Your task to perform on an android device: read, delete, or share a saved page in the chrome app Image 0: 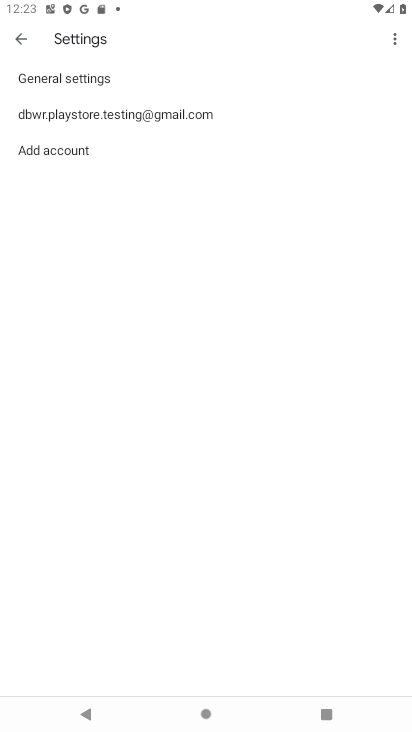
Step 0: click (14, 38)
Your task to perform on an android device: read, delete, or share a saved page in the chrome app Image 1: 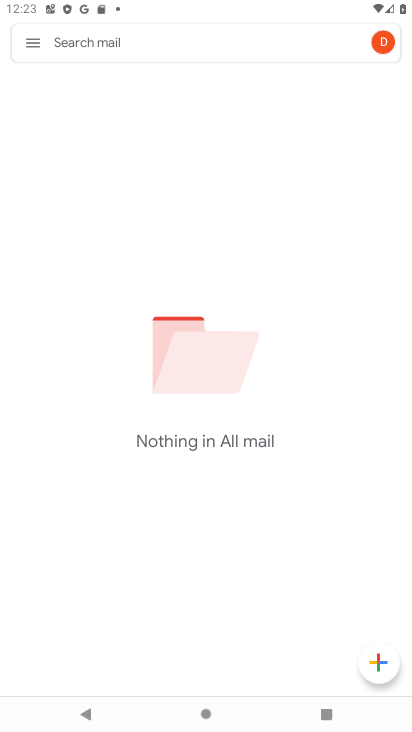
Step 1: press home button
Your task to perform on an android device: read, delete, or share a saved page in the chrome app Image 2: 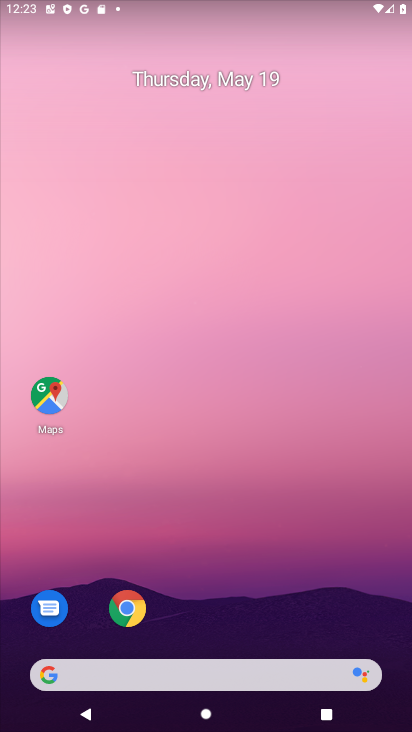
Step 2: drag from (247, 575) to (239, 249)
Your task to perform on an android device: read, delete, or share a saved page in the chrome app Image 3: 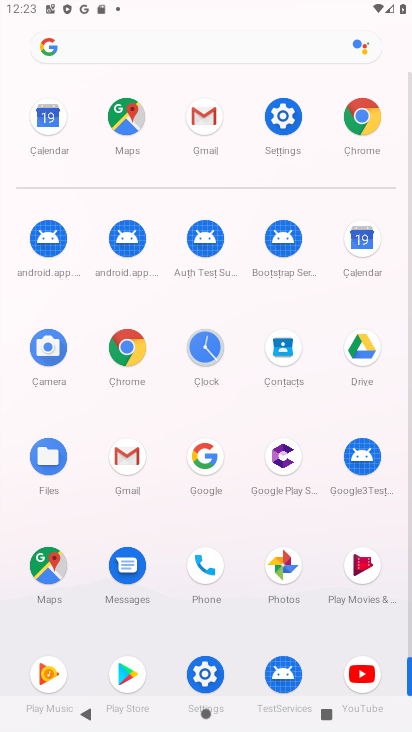
Step 3: click (371, 113)
Your task to perform on an android device: read, delete, or share a saved page in the chrome app Image 4: 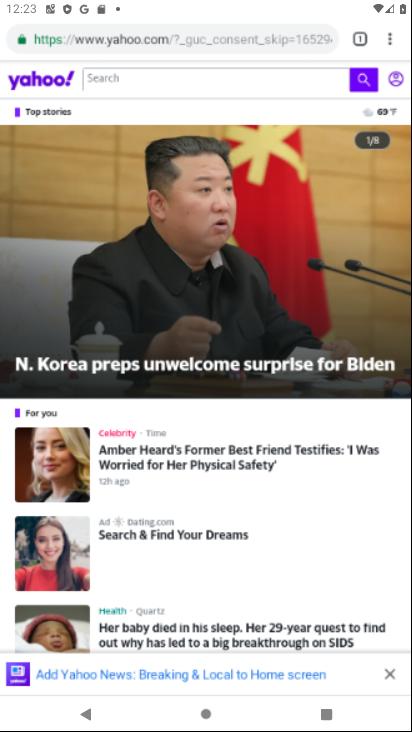
Step 4: click (396, 34)
Your task to perform on an android device: read, delete, or share a saved page in the chrome app Image 5: 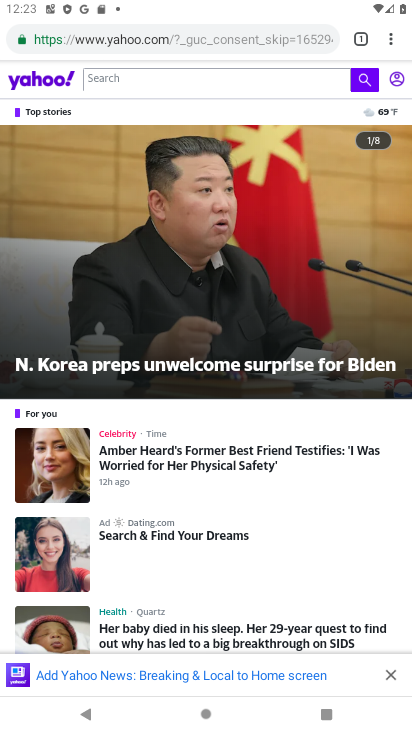
Step 5: click (393, 38)
Your task to perform on an android device: read, delete, or share a saved page in the chrome app Image 6: 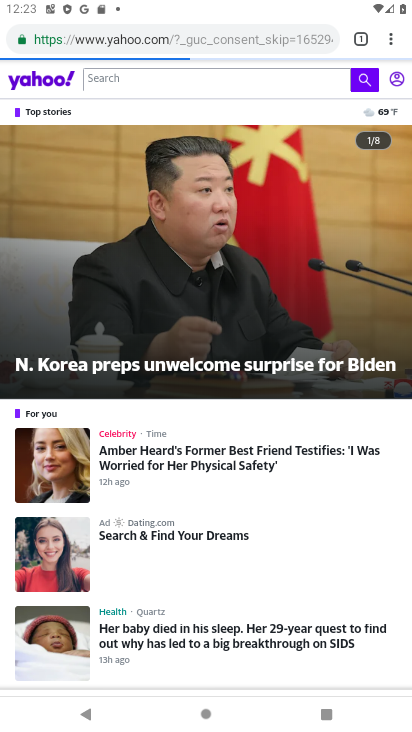
Step 6: click (388, 34)
Your task to perform on an android device: read, delete, or share a saved page in the chrome app Image 7: 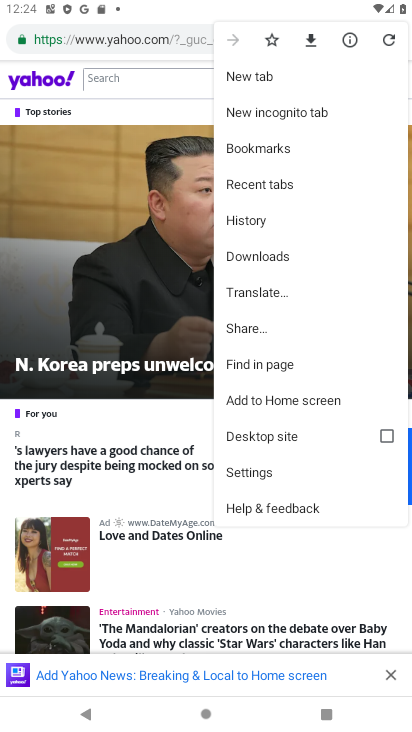
Step 7: click (263, 257)
Your task to perform on an android device: read, delete, or share a saved page in the chrome app Image 8: 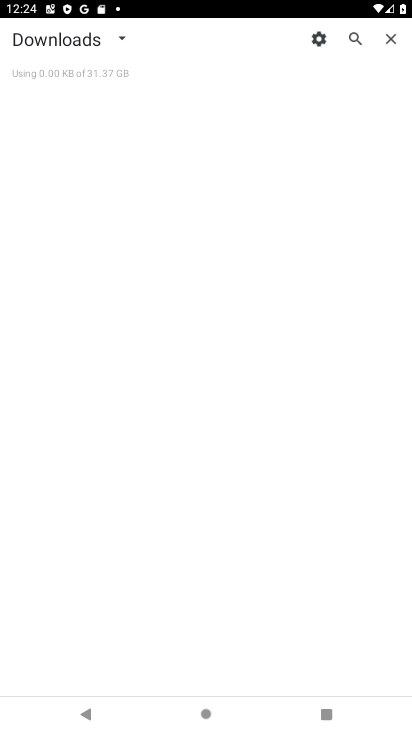
Step 8: click (124, 36)
Your task to perform on an android device: read, delete, or share a saved page in the chrome app Image 9: 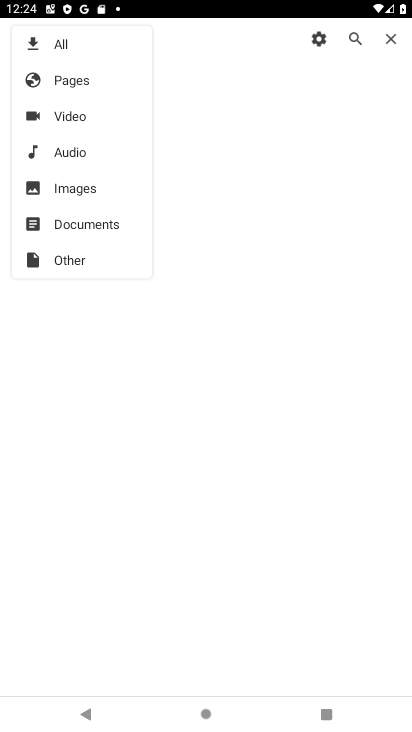
Step 9: click (76, 83)
Your task to perform on an android device: read, delete, or share a saved page in the chrome app Image 10: 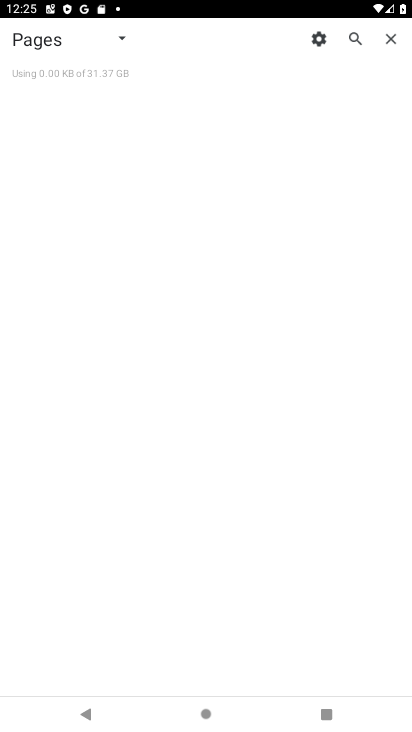
Step 10: task complete